Your task to perform on an android device: What's the weather going to be this weekend? Image 0: 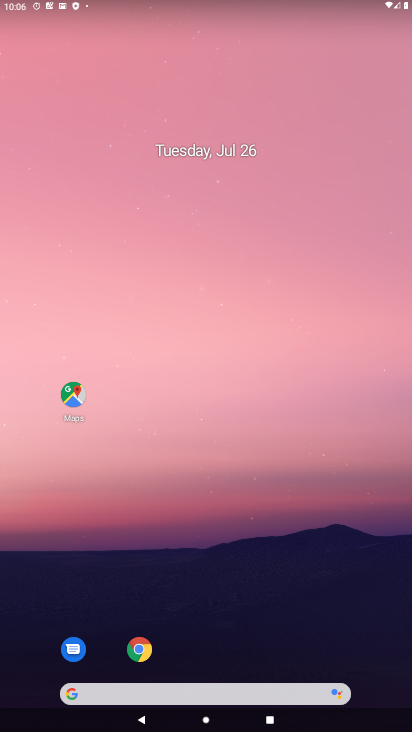
Step 0: drag from (165, 665) to (196, 139)
Your task to perform on an android device: What's the weather going to be this weekend? Image 1: 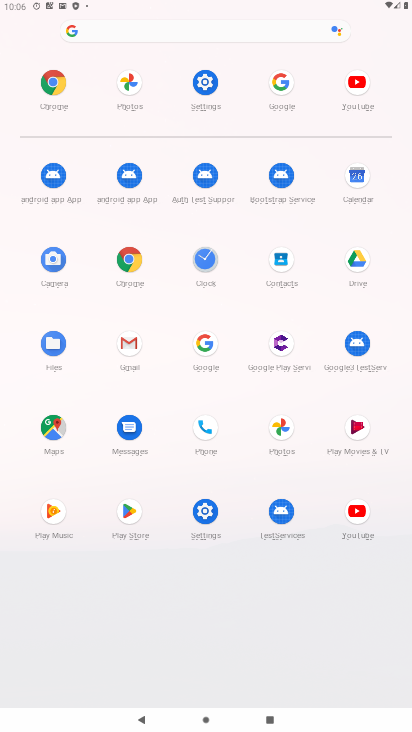
Step 1: click (167, 29)
Your task to perform on an android device: What's the weather going to be this weekend? Image 2: 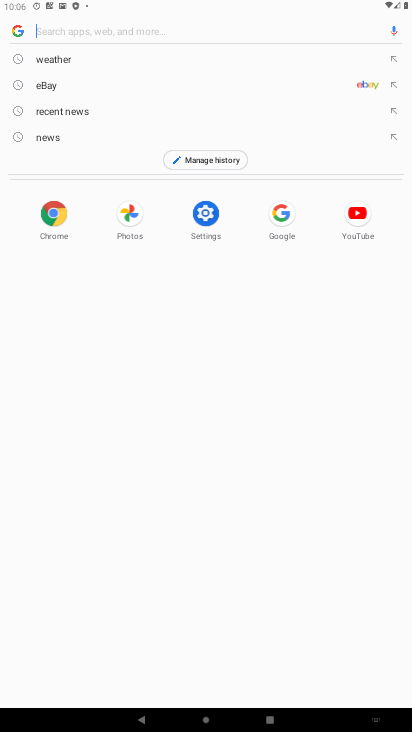
Step 2: type "What's the weather going to be this weekend?"
Your task to perform on an android device: What's the weather going to be this weekend? Image 3: 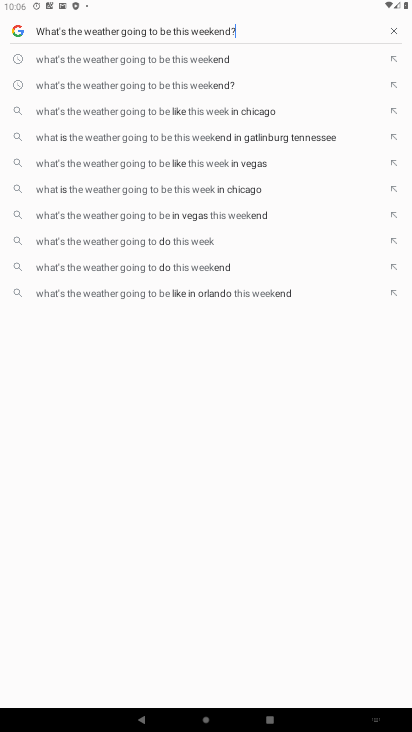
Step 3: type ""
Your task to perform on an android device: What's the weather going to be this weekend? Image 4: 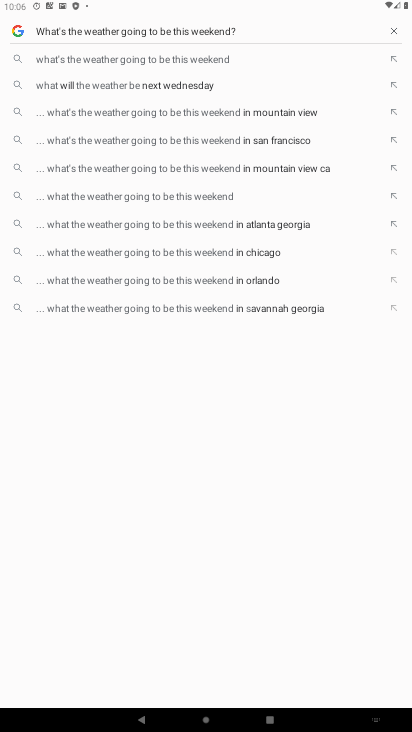
Step 4: click (92, 56)
Your task to perform on an android device: What's the weather going to be this weekend? Image 5: 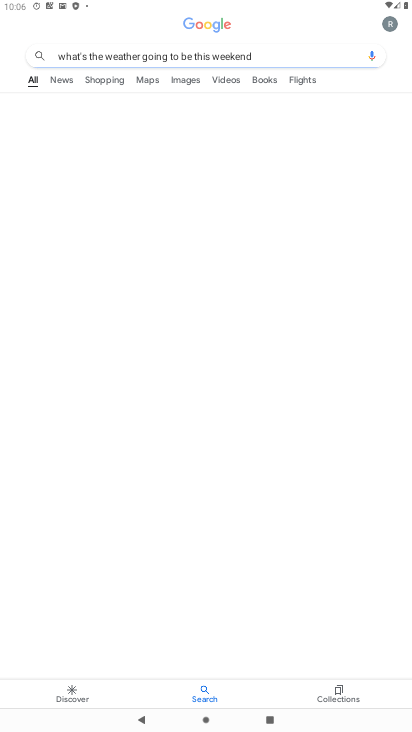
Step 5: task complete